Your task to perform on an android device: toggle priority inbox in the gmail app Image 0: 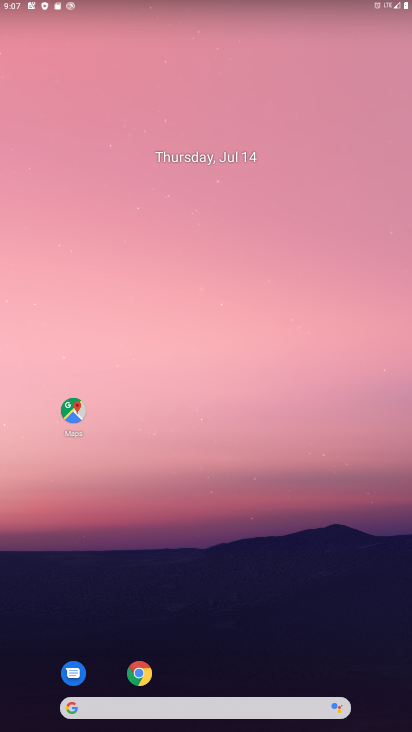
Step 0: drag from (247, 700) to (258, 265)
Your task to perform on an android device: toggle priority inbox in the gmail app Image 1: 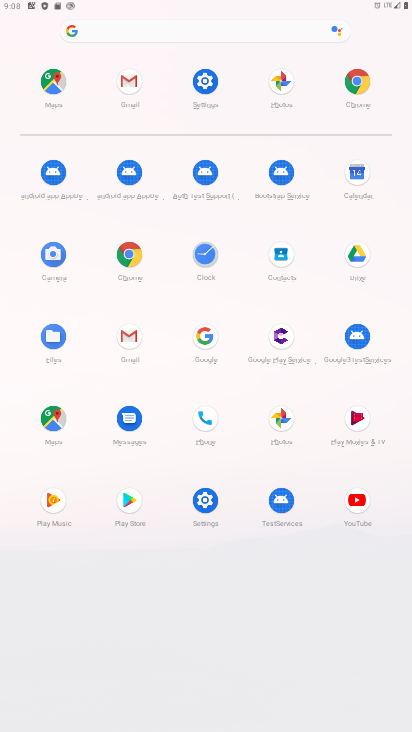
Step 1: click (128, 80)
Your task to perform on an android device: toggle priority inbox in the gmail app Image 2: 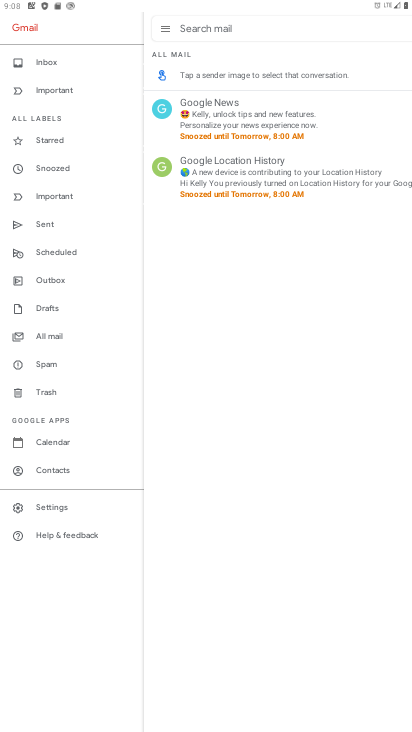
Step 2: click (59, 510)
Your task to perform on an android device: toggle priority inbox in the gmail app Image 3: 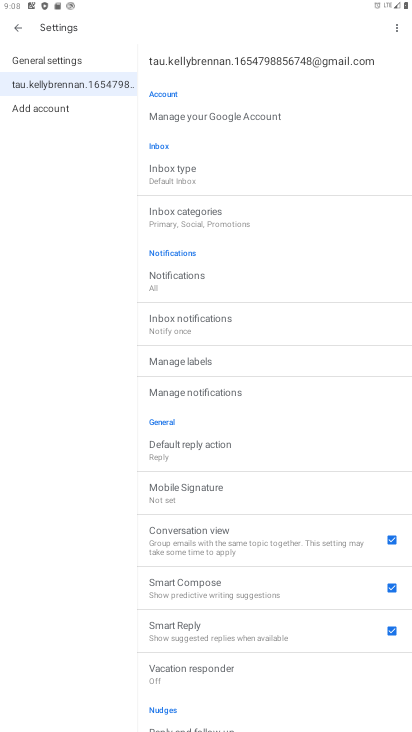
Step 3: click (184, 176)
Your task to perform on an android device: toggle priority inbox in the gmail app Image 4: 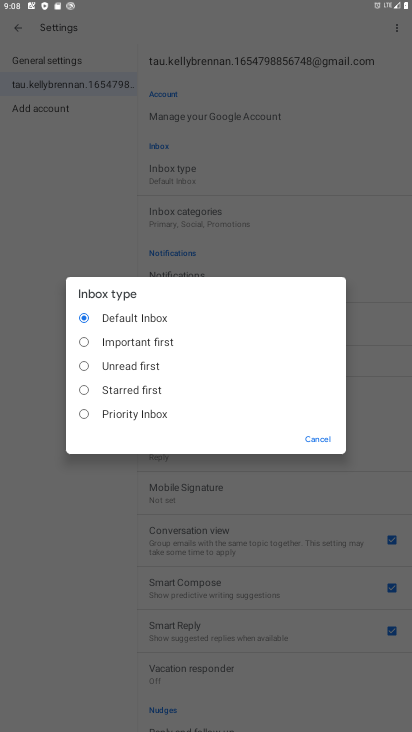
Step 4: click (83, 415)
Your task to perform on an android device: toggle priority inbox in the gmail app Image 5: 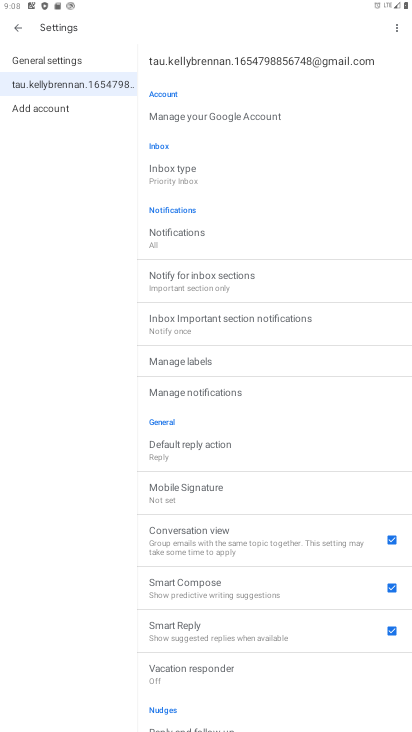
Step 5: task complete